Your task to perform on an android device: turn on sleep mode Image 0: 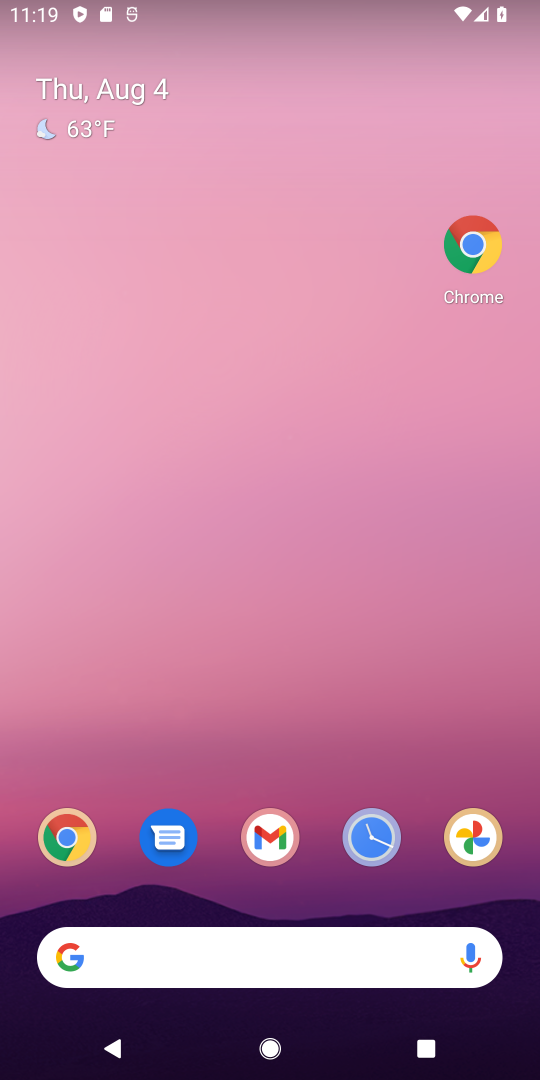
Step 0: press home button
Your task to perform on an android device: turn on sleep mode Image 1: 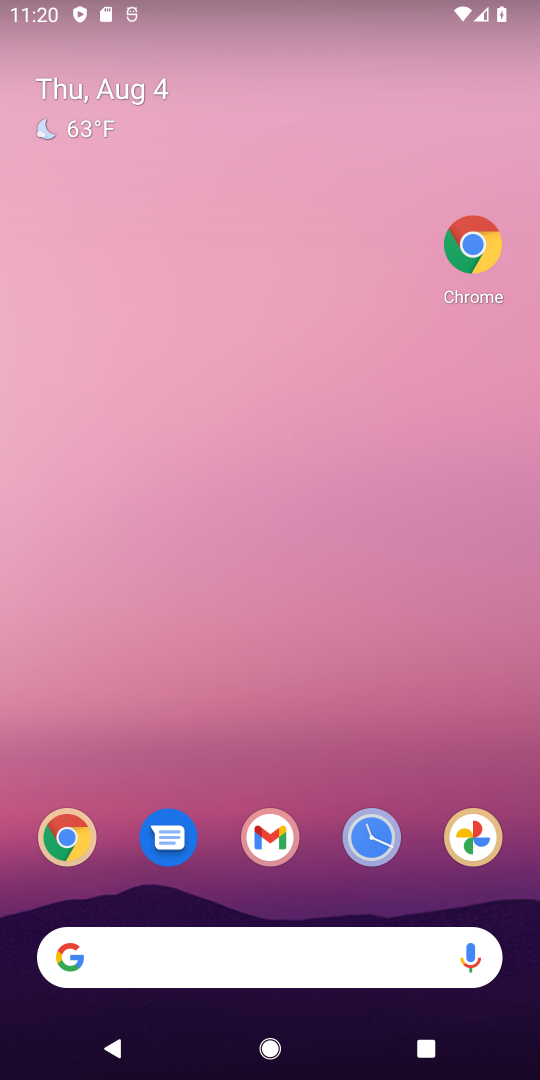
Step 1: drag from (333, 897) to (357, 66)
Your task to perform on an android device: turn on sleep mode Image 2: 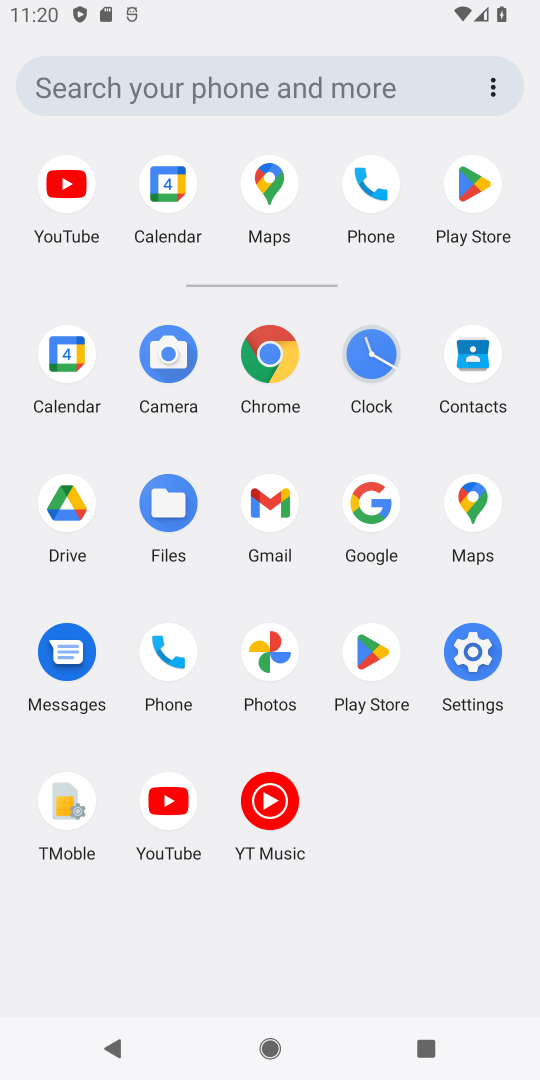
Step 2: click (473, 644)
Your task to perform on an android device: turn on sleep mode Image 3: 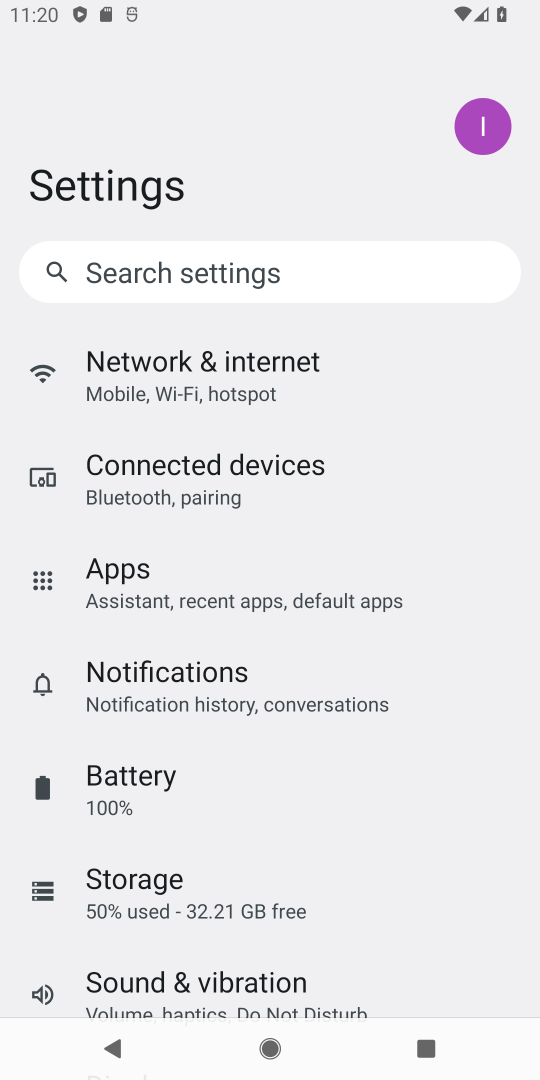
Step 3: drag from (197, 941) to (231, 325)
Your task to perform on an android device: turn on sleep mode Image 4: 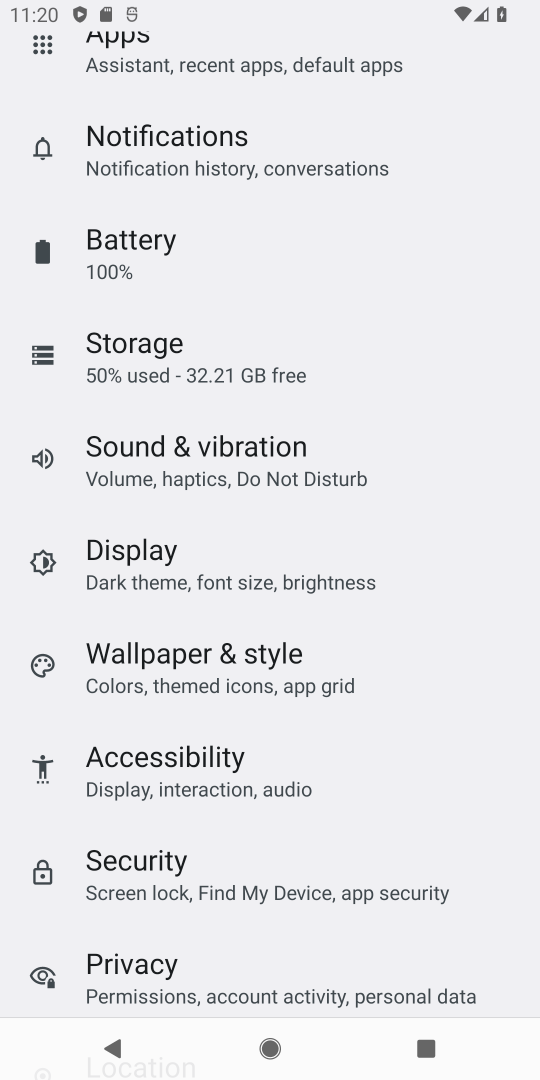
Step 4: click (216, 550)
Your task to perform on an android device: turn on sleep mode Image 5: 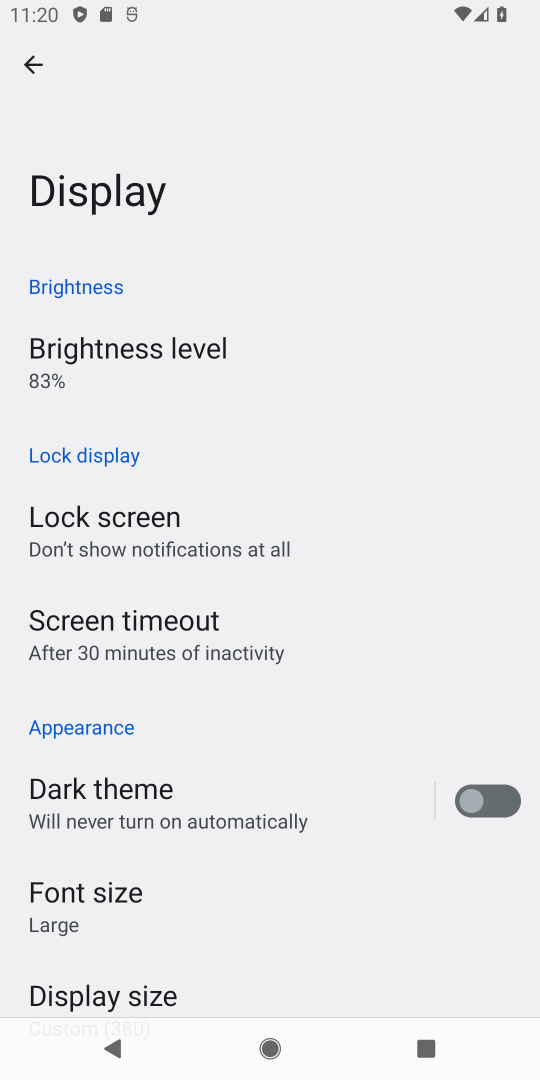
Step 5: task complete